Your task to perform on an android device: Open notification settings Image 0: 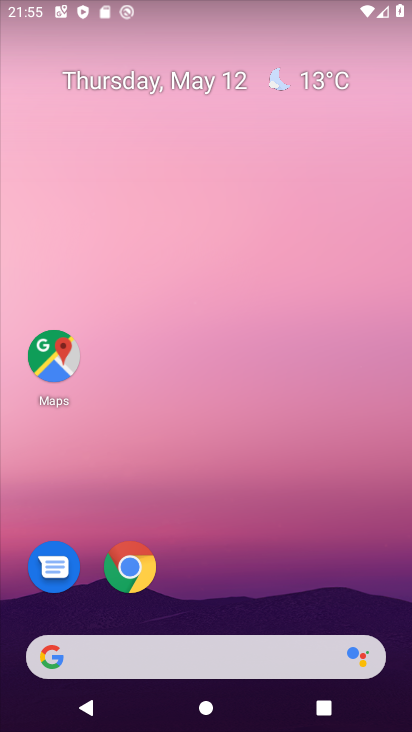
Step 0: drag from (219, 619) to (223, 111)
Your task to perform on an android device: Open notification settings Image 1: 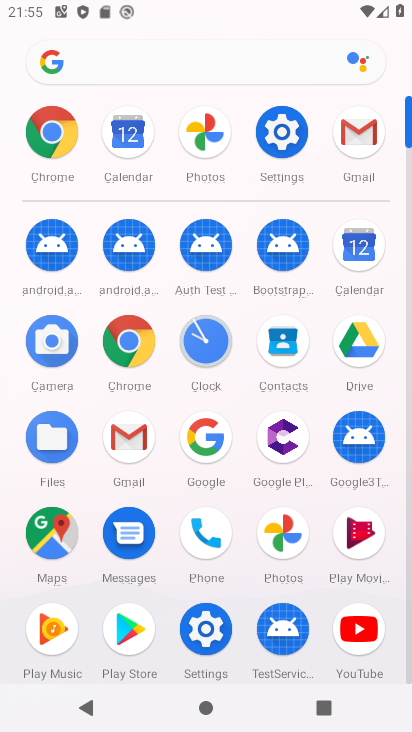
Step 1: click (280, 127)
Your task to perform on an android device: Open notification settings Image 2: 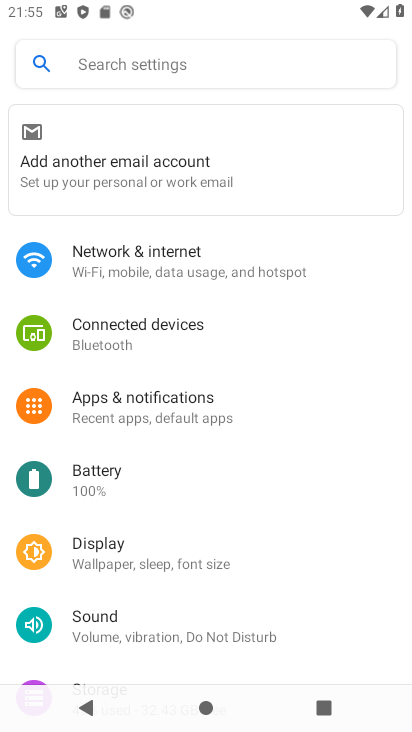
Step 2: click (223, 398)
Your task to perform on an android device: Open notification settings Image 3: 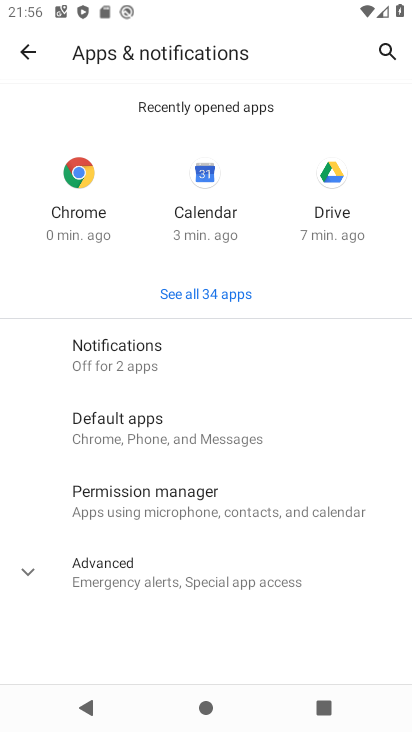
Step 3: click (166, 354)
Your task to perform on an android device: Open notification settings Image 4: 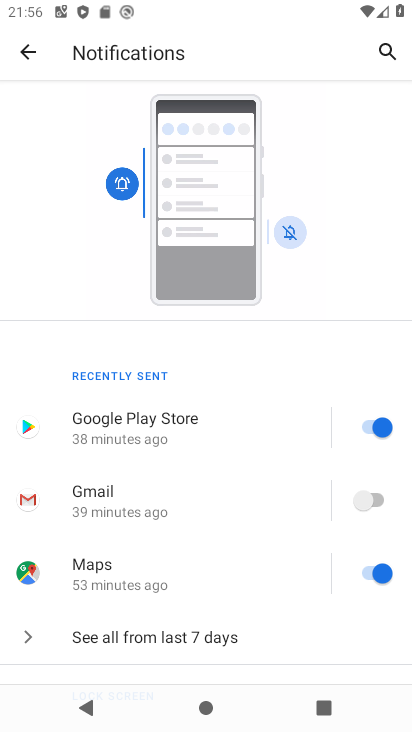
Step 4: drag from (230, 618) to (256, 137)
Your task to perform on an android device: Open notification settings Image 5: 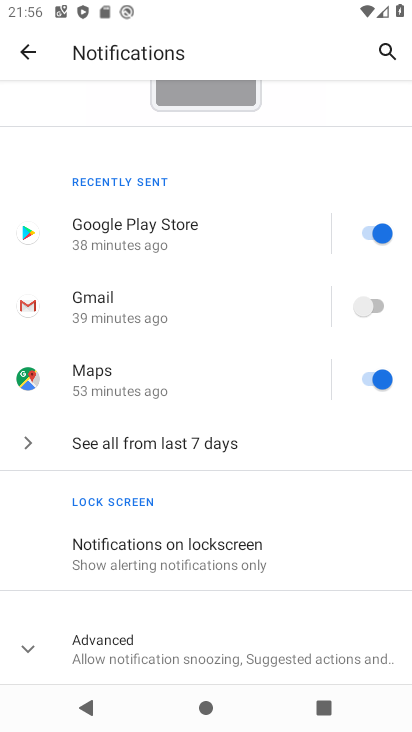
Step 5: click (375, 296)
Your task to perform on an android device: Open notification settings Image 6: 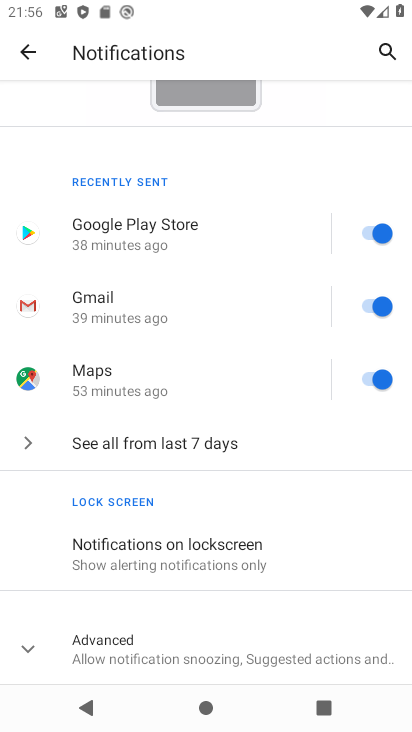
Step 6: click (22, 647)
Your task to perform on an android device: Open notification settings Image 7: 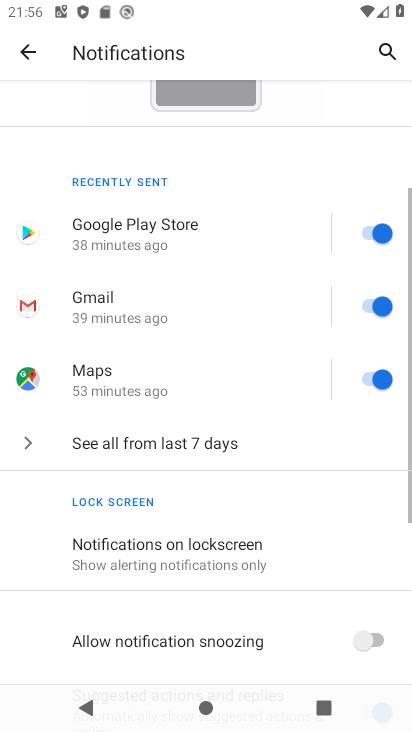
Step 7: task complete